Your task to perform on an android device: change text size in settings app Image 0: 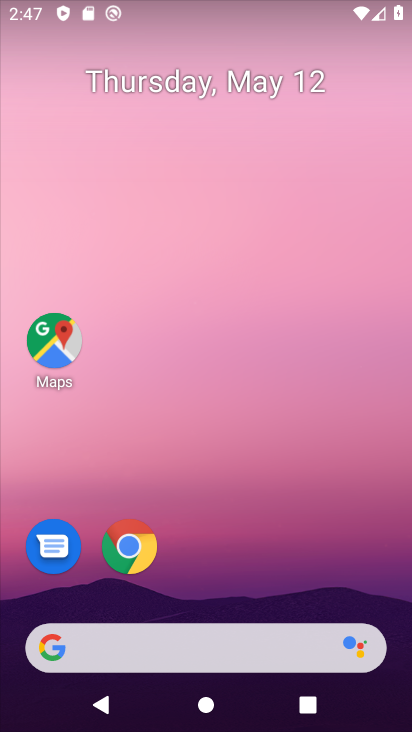
Step 0: drag from (283, 598) to (303, 303)
Your task to perform on an android device: change text size in settings app Image 1: 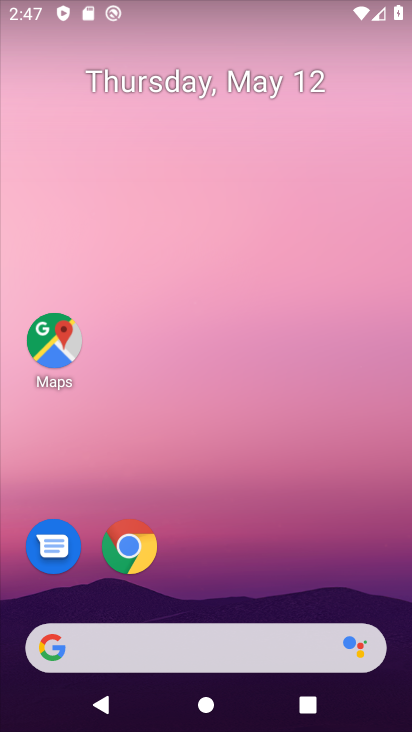
Step 1: drag from (240, 576) to (293, 164)
Your task to perform on an android device: change text size in settings app Image 2: 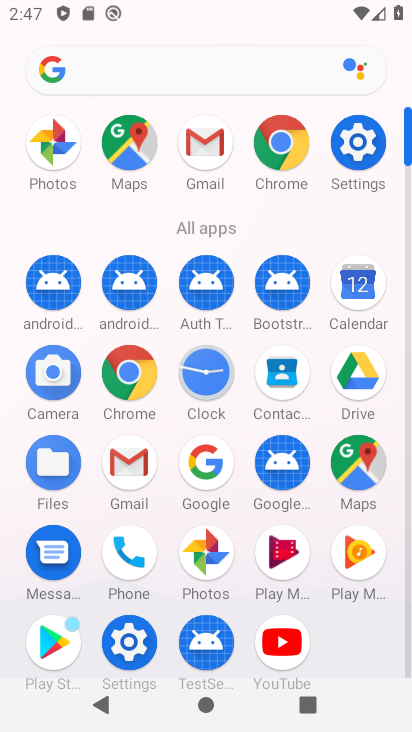
Step 2: click (355, 141)
Your task to perform on an android device: change text size in settings app Image 3: 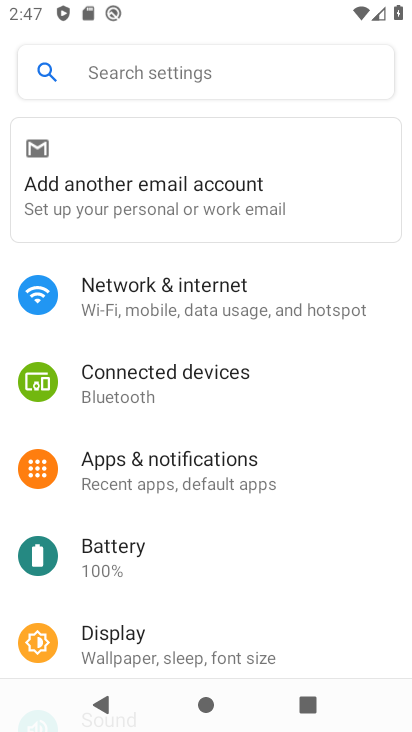
Step 3: drag from (205, 598) to (269, 195)
Your task to perform on an android device: change text size in settings app Image 4: 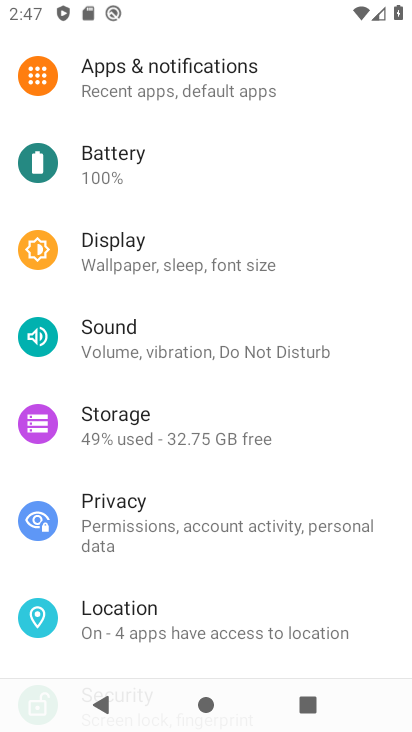
Step 4: drag from (183, 593) to (267, 305)
Your task to perform on an android device: change text size in settings app Image 5: 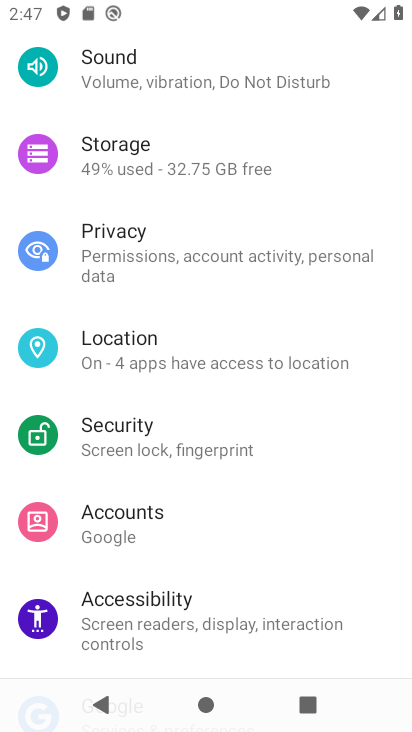
Step 5: click (149, 610)
Your task to perform on an android device: change text size in settings app Image 6: 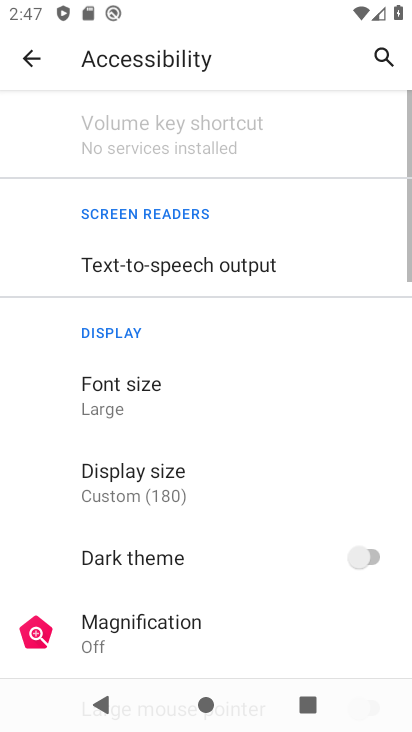
Step 6: click (136, 404)
Your task to perform on an android device: change text size in settings app Image 7: 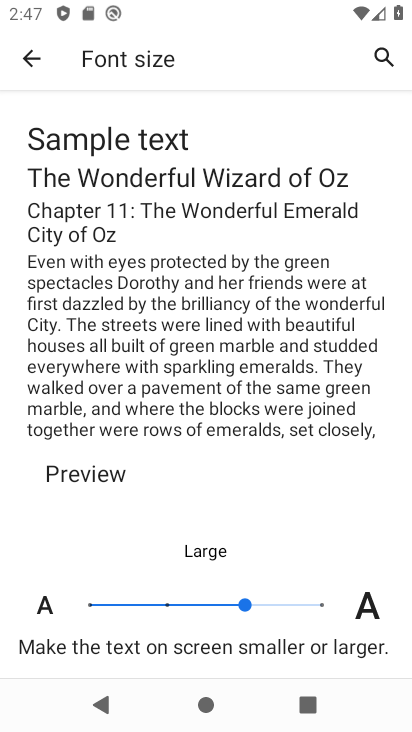
Step 7: click (172, 595)
Your task to perform on an android device: change text size in settings app Image 8: 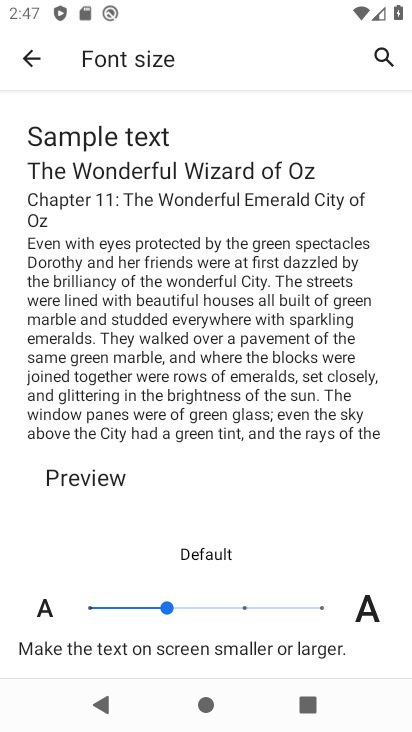
Step 8: task complete